Your task to perform on an android device: open device folders in google photos Image 0: 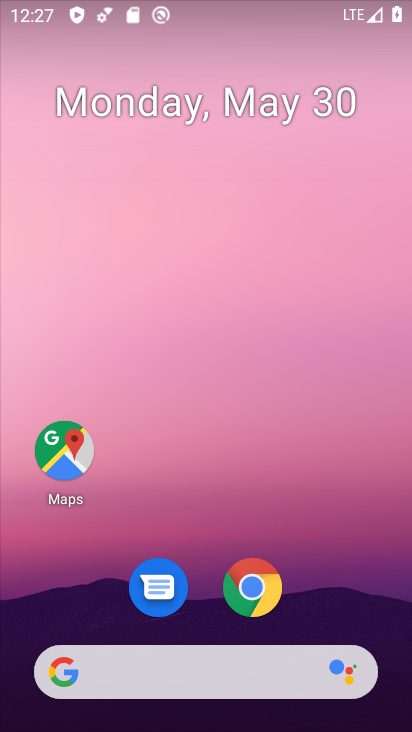
Step 0: drag from (321, 584) to (369, 74)
Your task to perform on an android device: open device folders in google photos Image 1: 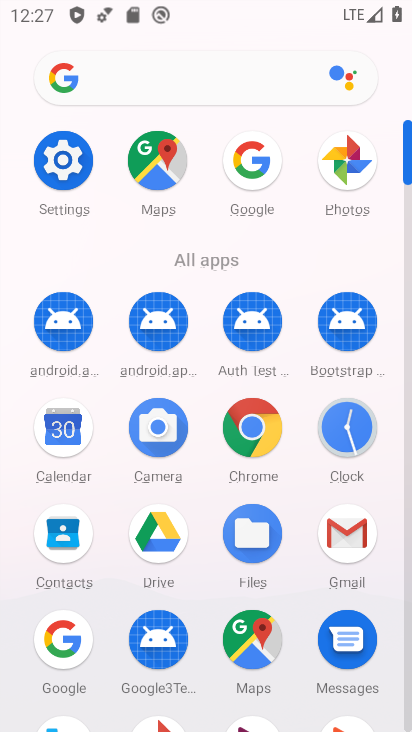
Step 1: click (345, 160)
Your task to perform on an android device: open device folders in google photos Image 2: 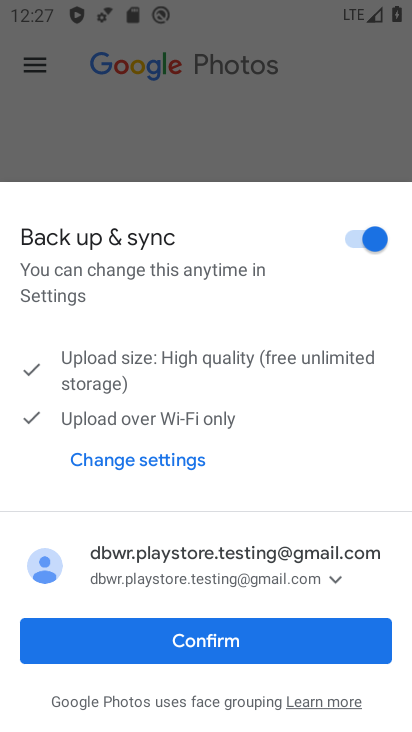
Step 2: drag from (40, 67) to (143, 70)
Your task to perform on an android device: open device folders in google photos Image 3: 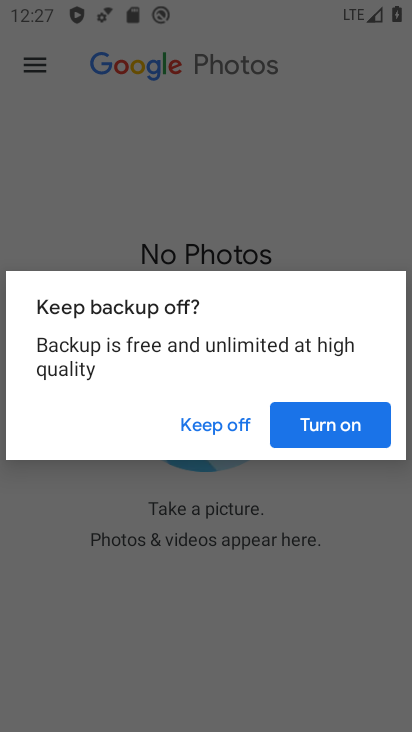
Step 3: click (177, 636)
Your task to perform on an android device: open device folders in google photos Image 4: 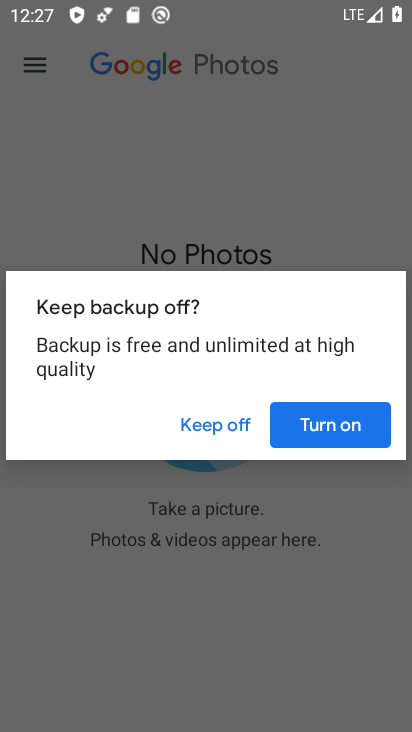
Step 4: click (319, 421)
Your task to perform on an android device: open device folders in google photos Image 5: 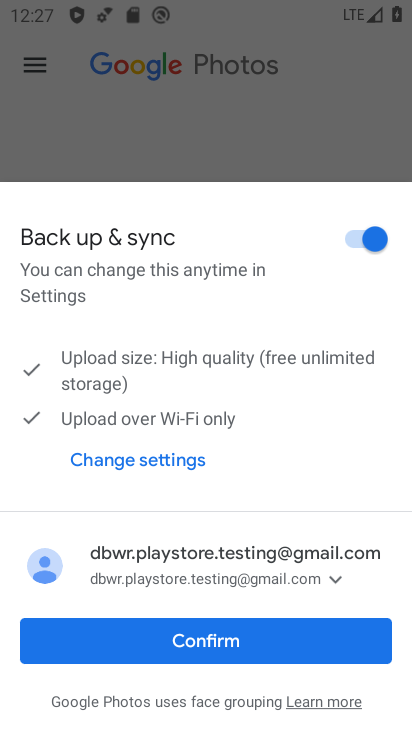
Step 5: click (208, 668)
Your task to perform on an android device: open device folders in google photos Image 6: 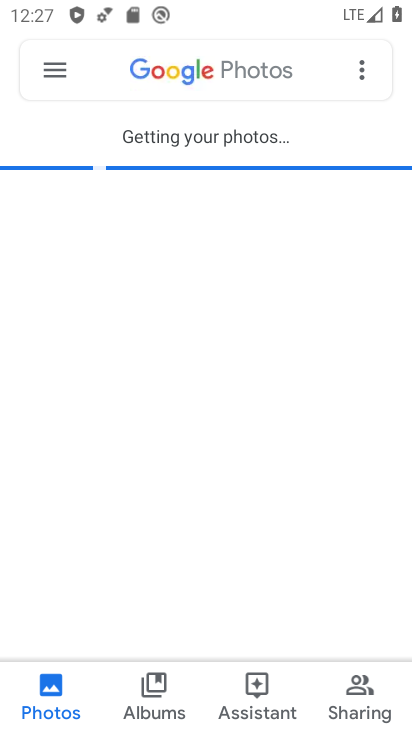
Step 6: click (39, 67)
Your task to perform on an android device: open device folders in google photos Image 7: 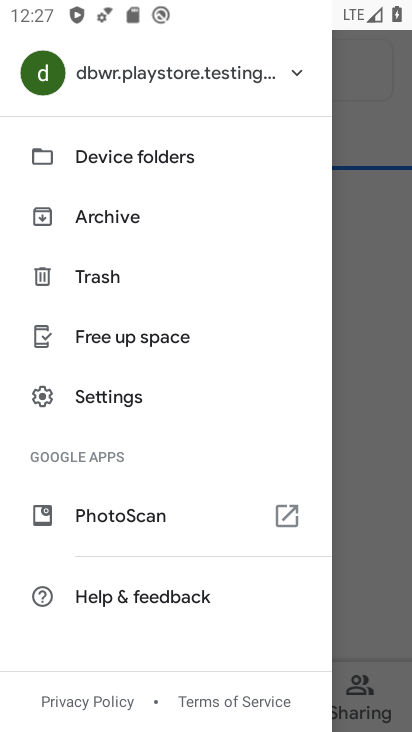
Step 7: click (133, 163)
Your task to perform on an android device: open device folders in google photos Image 8: 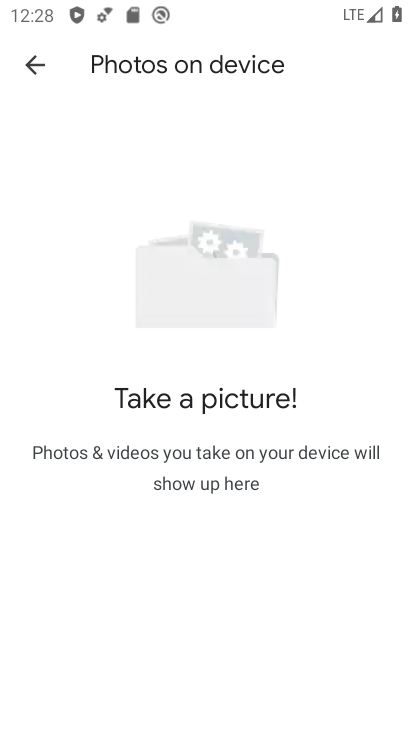
Step 8: task complete